Your task to perform on an android device: Open settings on Google Maps Image 0: 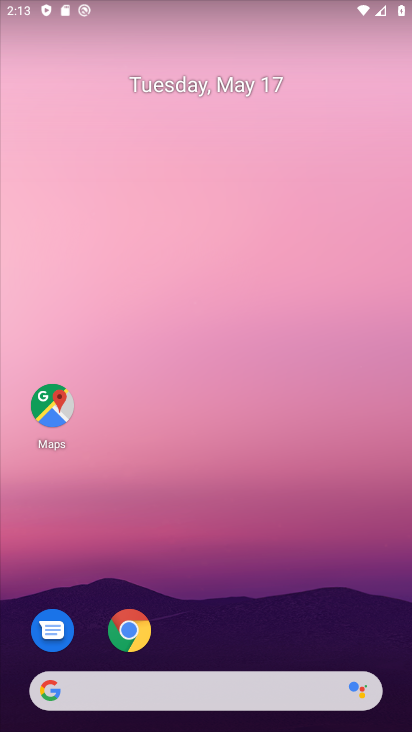
Step 0: drag from (293, 677) to (227, 211)
Your task to perform on an android device: Open settings on Google Maps Image 1: 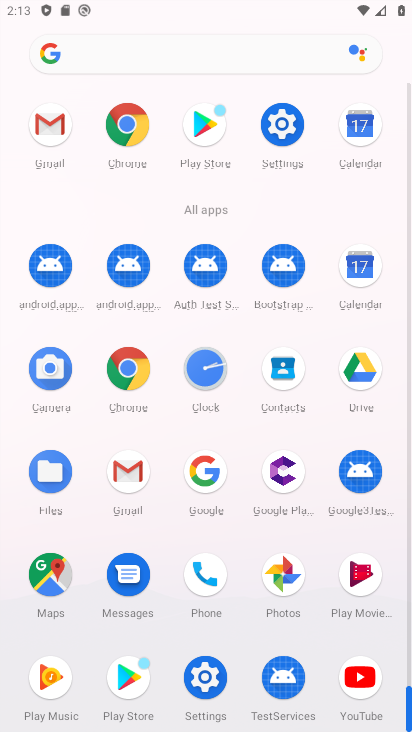
Step 1: click (47, 576)
Your task to perform on an android device: Open settings on Google Maps Image 2: 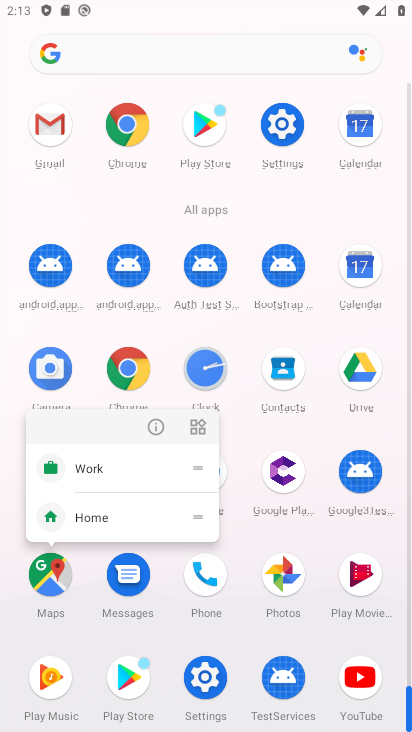
Step 2: click (60, 582)
Your task to perform on an android device: Open settings on Google Maps Image 3: 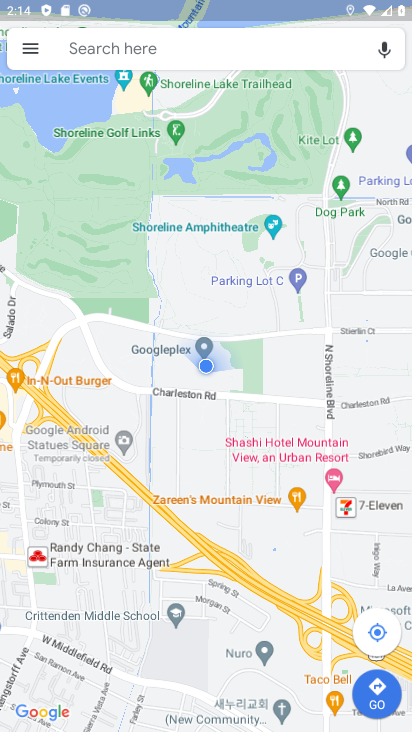
Step 3: task complete